Your task to perform on an android device: Open the map Image 0: 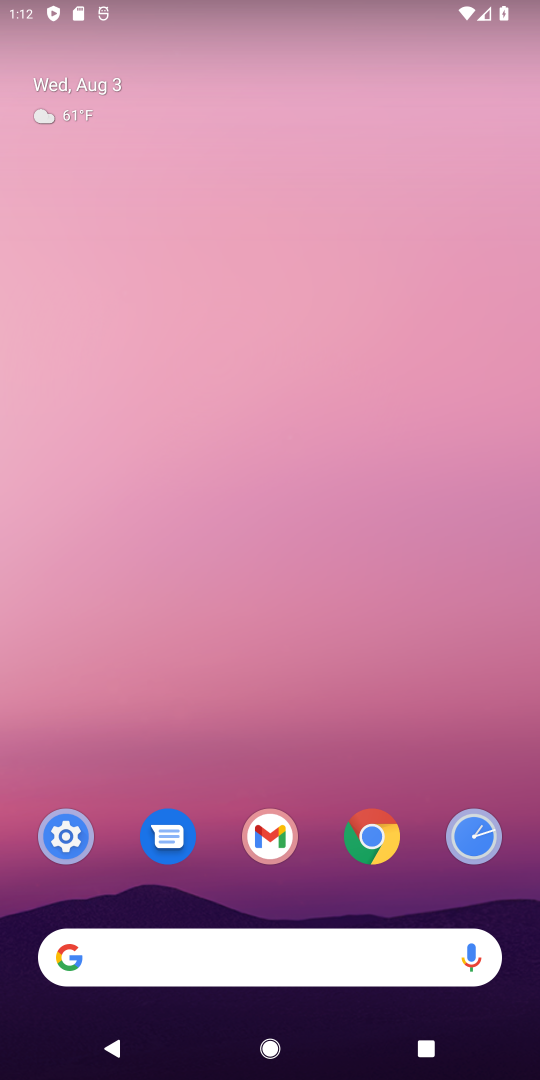
Step 0: drag from (189, 893) to (312, 418)
Your task to perform on an android device: Open the map Image 1: 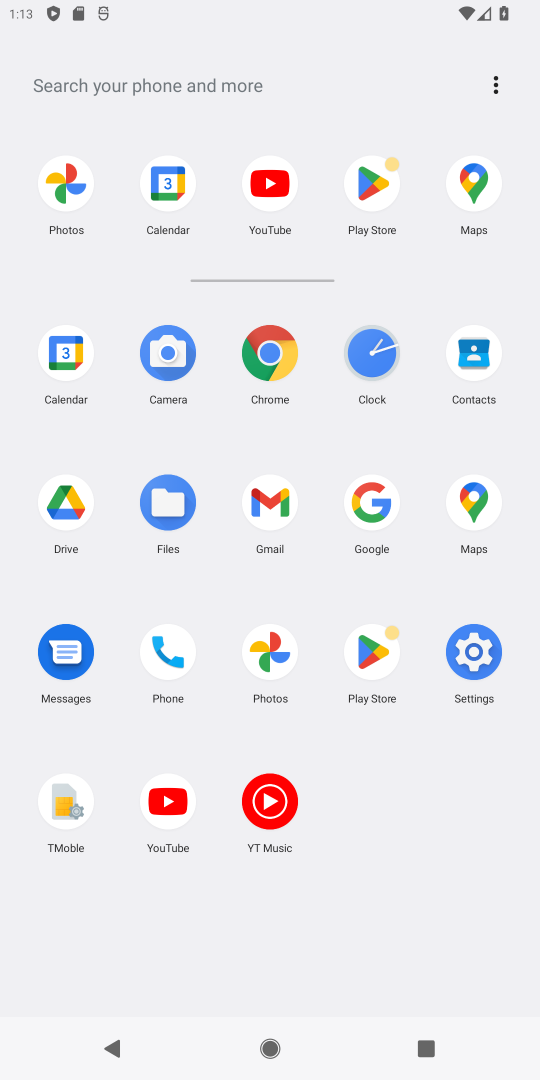
Step 1: drag from (335, 957) to (335, 553)
Your task to perform on an android device: Open the map Image 2: 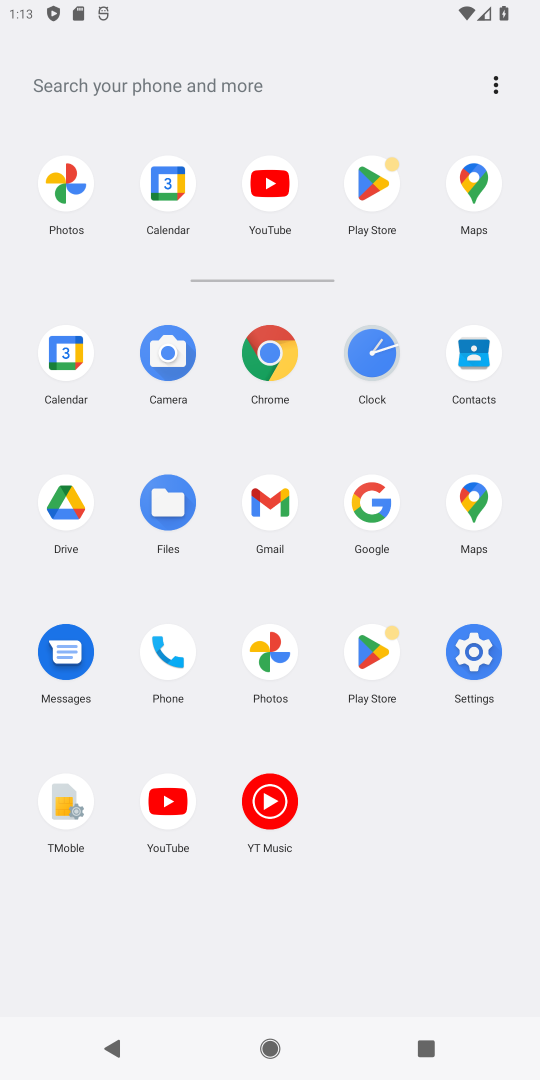
Step 2: drag from (341, 301) to (307, 1038)
Your task to perform on an android device: Open the map Image 3: 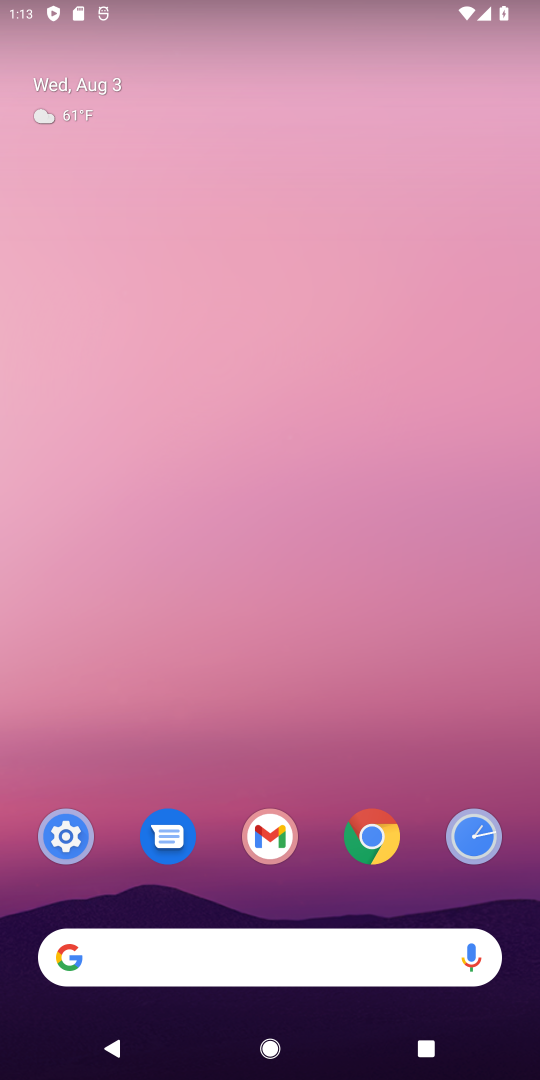
Step 3: drag from (234, 910) to (343, 195)
Your task to perform on an android device: Open the map Image 4: 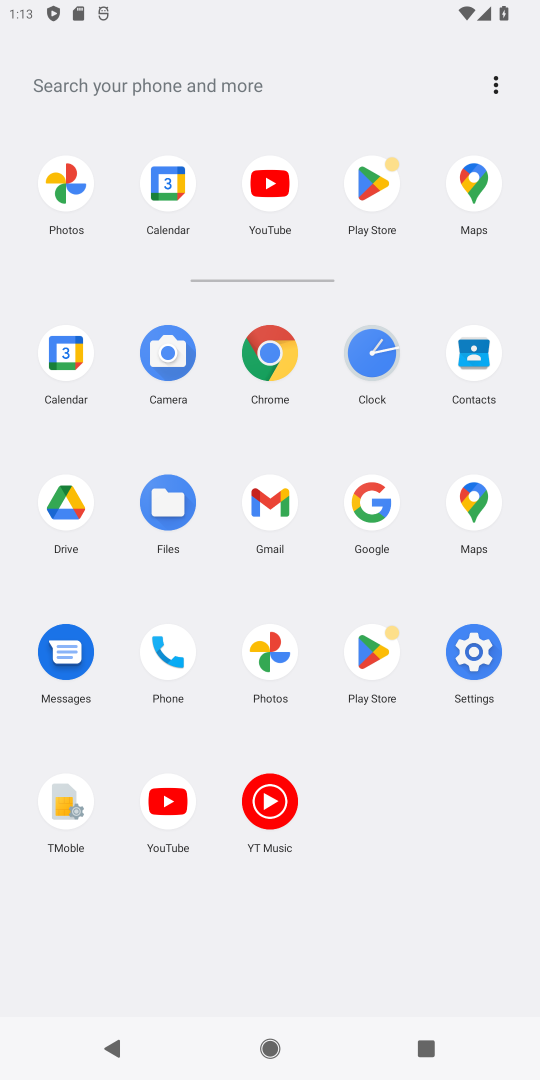
Step 4: click (475, 500)
Your task to perform on an android device: Open the map Image 5: 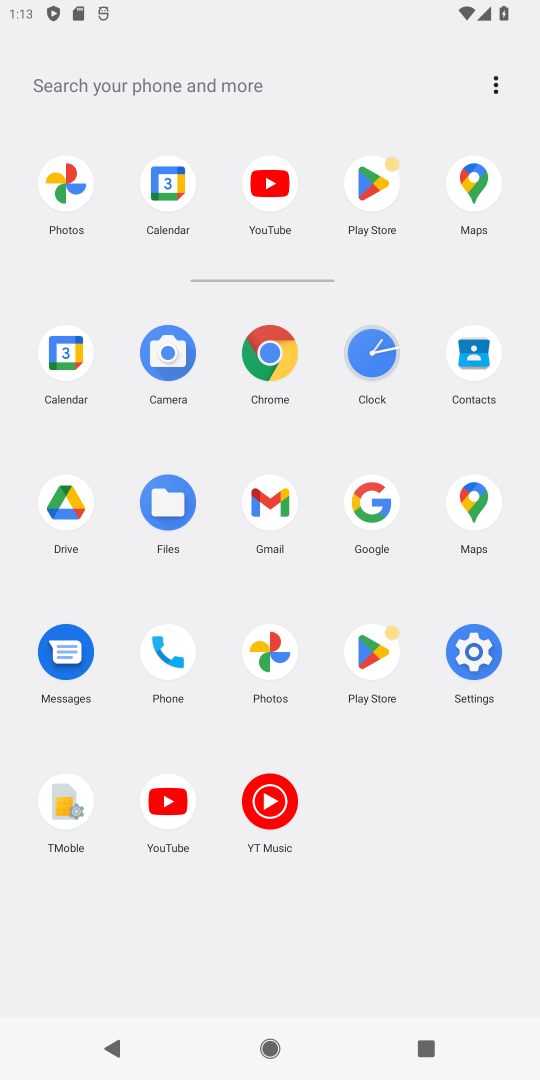
Step 5: click (475, 500)
Your task to perform on an android device: Open the map Image 6: 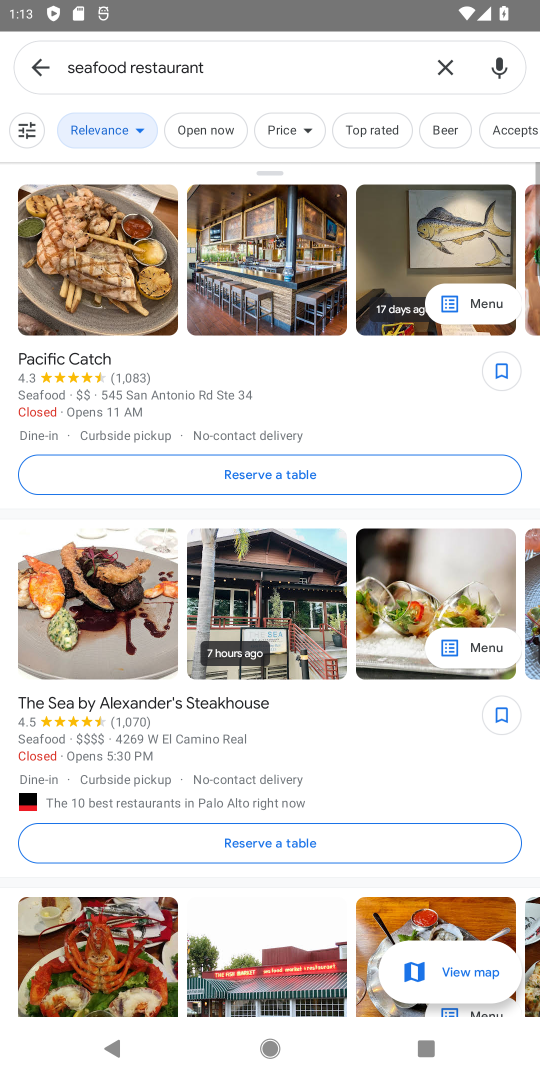
Step 6: task complete